Your task to perform on an android device: Go to Maps Image 0: 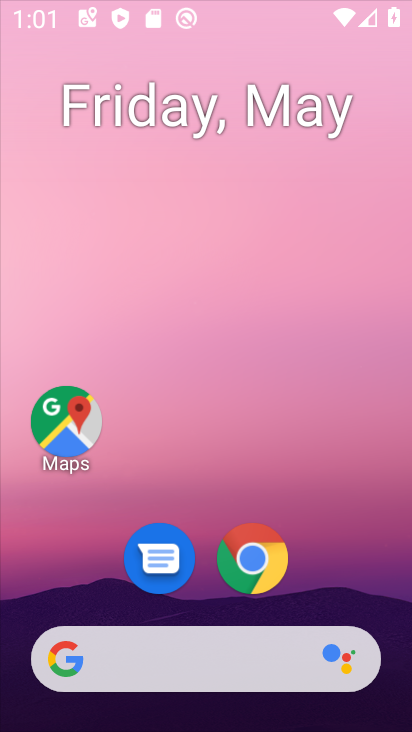
Step 0: click (270, 555)
Your task to perform on an android device: Go to Maps Image 1: 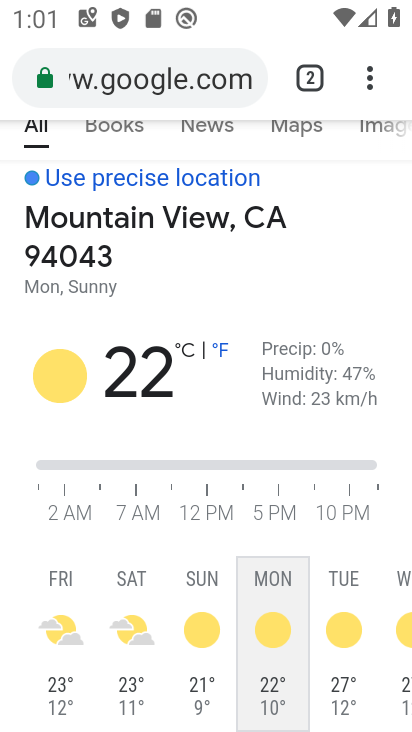
Step 1: click (311, 80)
Your task to perform on an android device: Go to Maps Image 2: 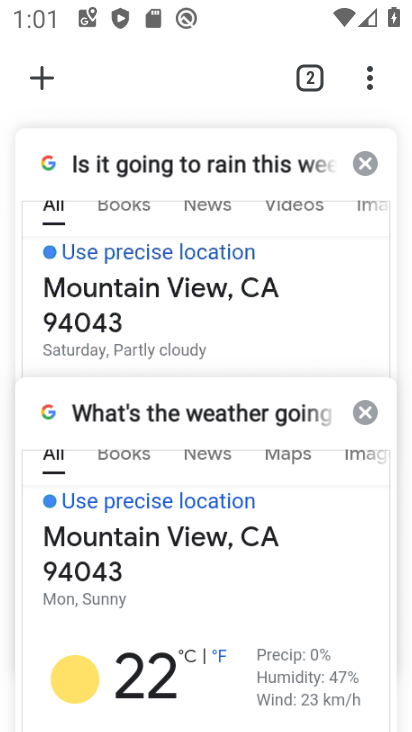
Step 2: press home button
Your task to perform on an android device: Go to Maps Image 3: 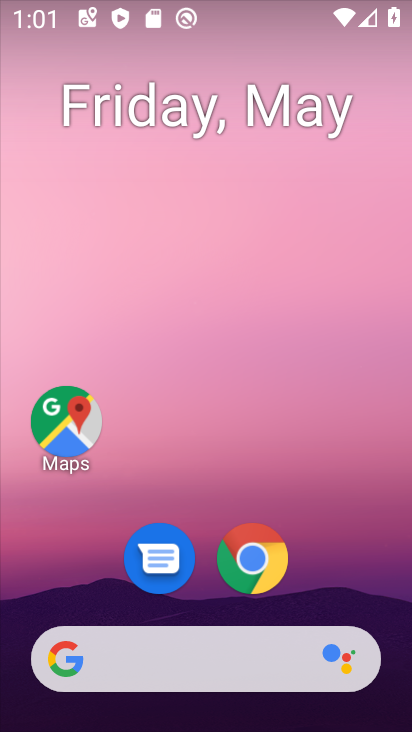
Step 3: click (70, 435)
Your task to perform on an android device: Go to Maps Image 4: 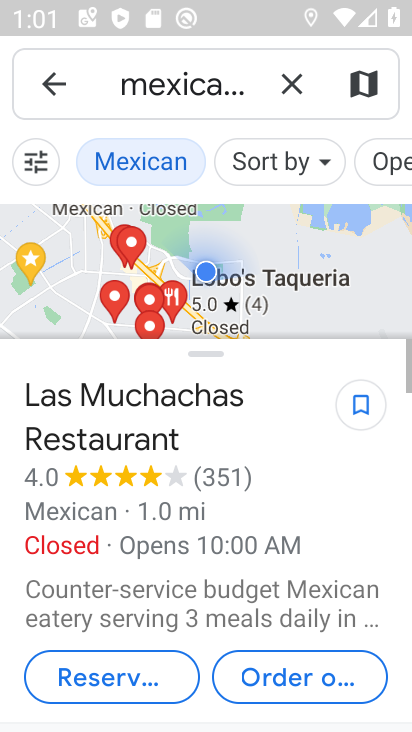
Step 4: task complete